Your task to perform on an android device: find which apps use the phone's location Image 0: 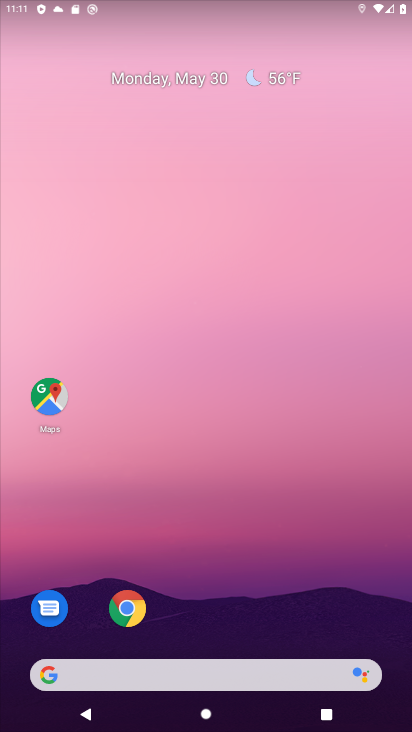
Step 0: drag from (253, 620) to (230, 28)
Your task to perform on an android device: find which apps use the phone's location Image 1: 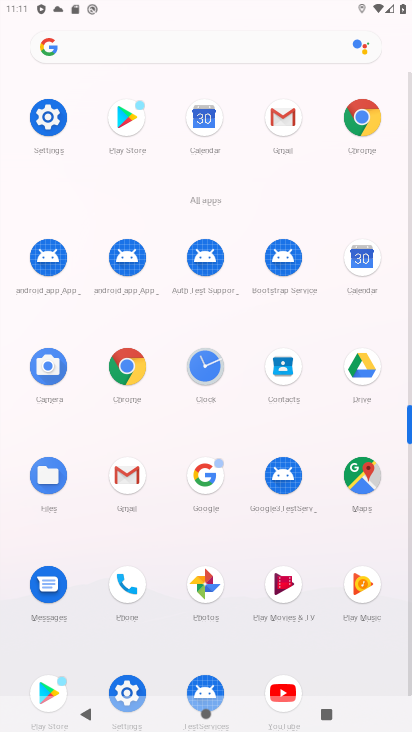
Step 1: click (51, 135)
Your task to perform on an android device: find which apps use the phone's location Image 2: 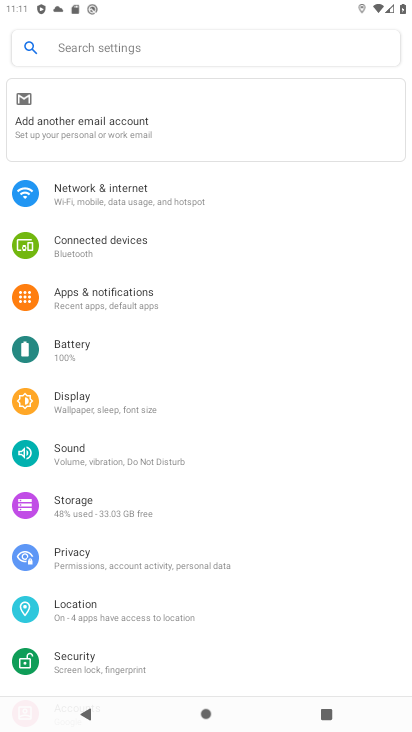
Step 2: click (72, 604)
Your task to perform on an android device: find which apps use the phone's location Image 3: 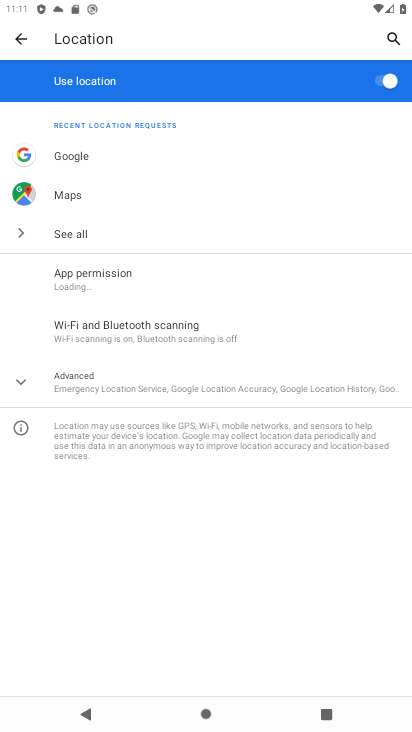
Step 3: click (70, 278)
Your task to perform on an android device: find which apps use the phone's location Image 4: 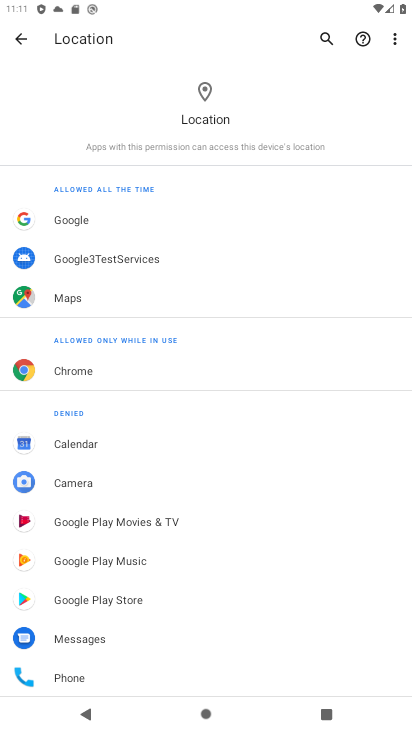
Step 4: task complete